Your task to perform on an android device: create a new album in the google photos Image 0: 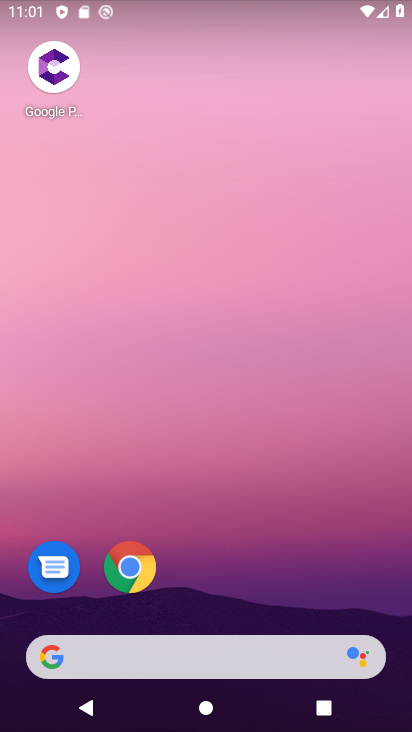
Step 0: drag from (368, 586) to (341, 93)
Your task to perform on an android device: create a new album in the google photos Image 1: 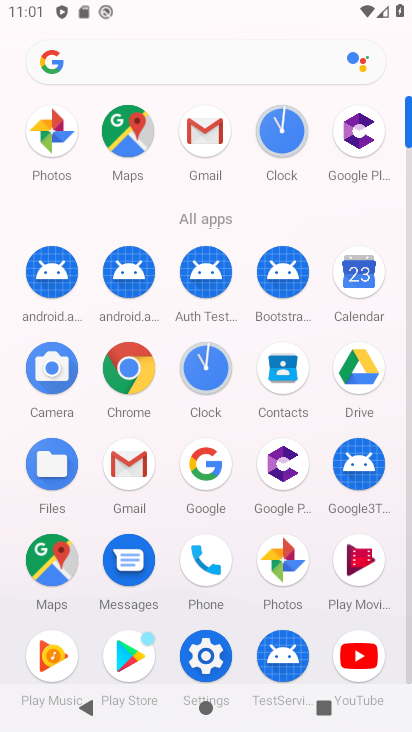
Step 1: click (274, 570)
Your task to perform on an android device: create a new album in the google photos Image 2: 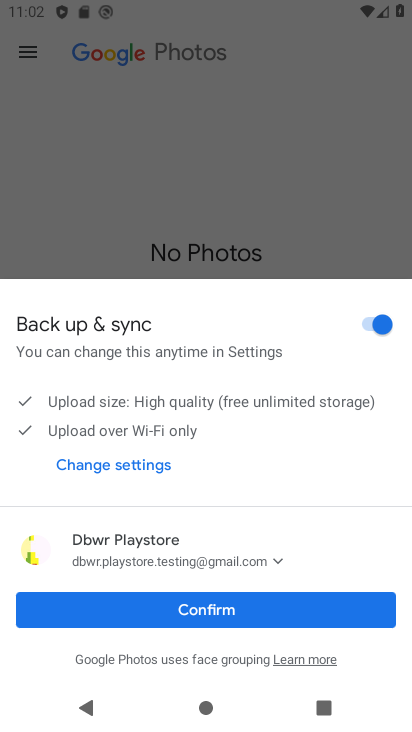
Step 2: click (289, 602)
Your task to perform on an android device: create a new album in the google photos Image 3: 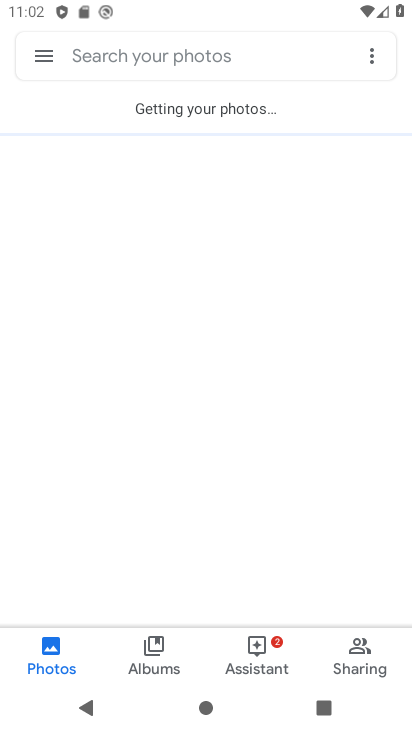
Step 3: click (151, 661)
Your task to perform on an android device: create a new album in the google photos Image 4: 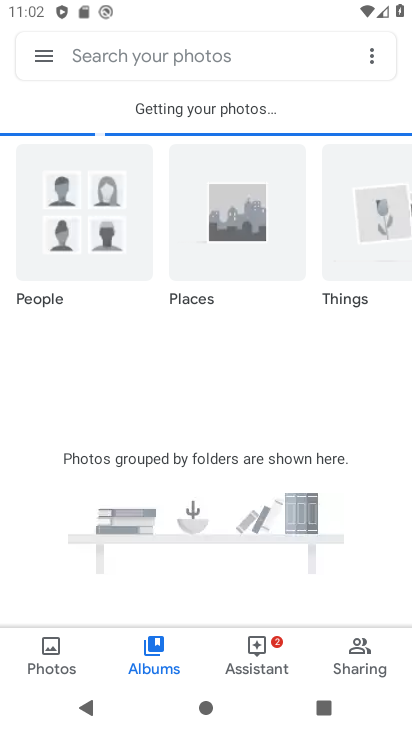
Step 4: task complete